Your task to perform on an android device: turn off notifications settings in the gmail app Image 0: 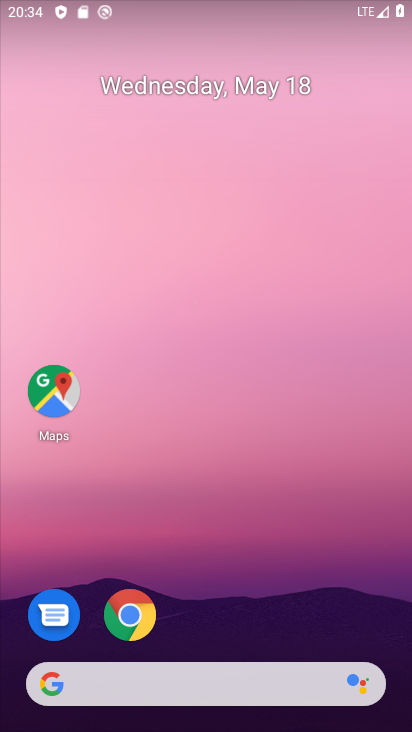
Step 0: drag from (173, 679) to (196, 228)
Your task to perform on an android device: turn off notifications settings in the gmail app Image 1: 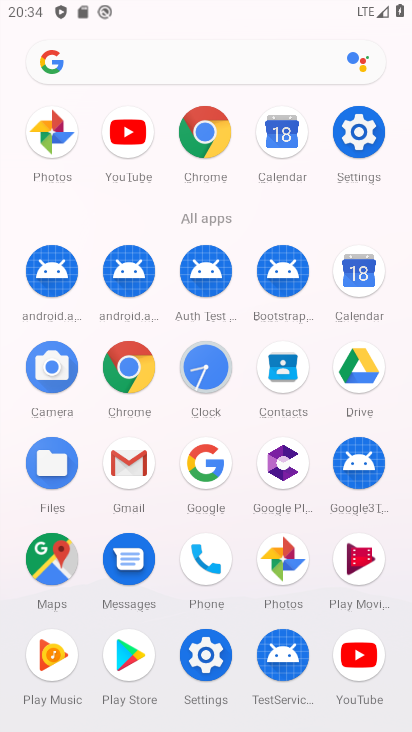
Step 1: click (130, 476)
Your task to perform on an android device: turn off notifications settings in the gmail app Image 2: 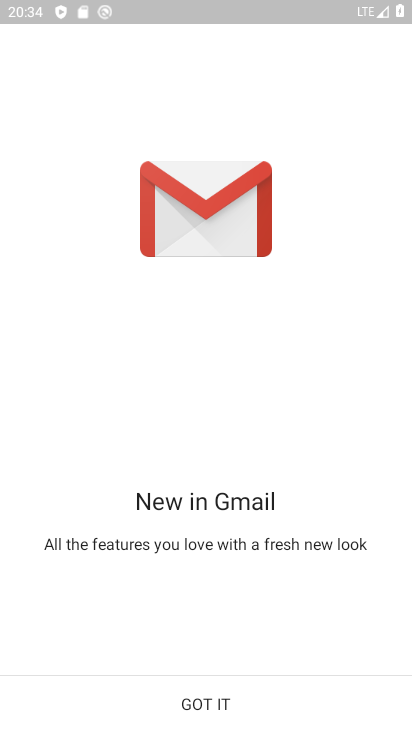
Step 2: click (211, 710)
Your task to perform on an android device: turn off notifications settings in the gmail app Image 3: 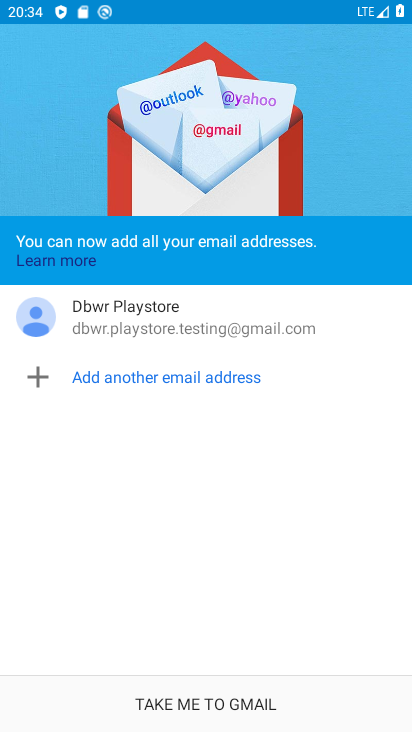
Step 3: click (211, 710)
Your task to perform on an android device: turn off notifications settings in the gmail app Image 4: 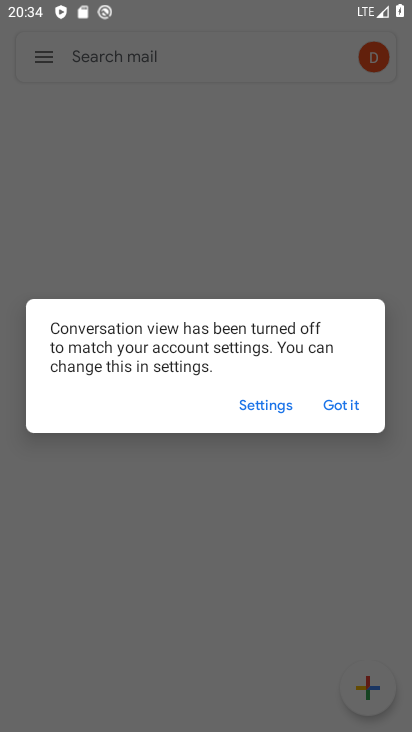
Step 4: click (338, 407)
Your task to perform on an android device: turn off notifications settings in the gmail app Image 5: 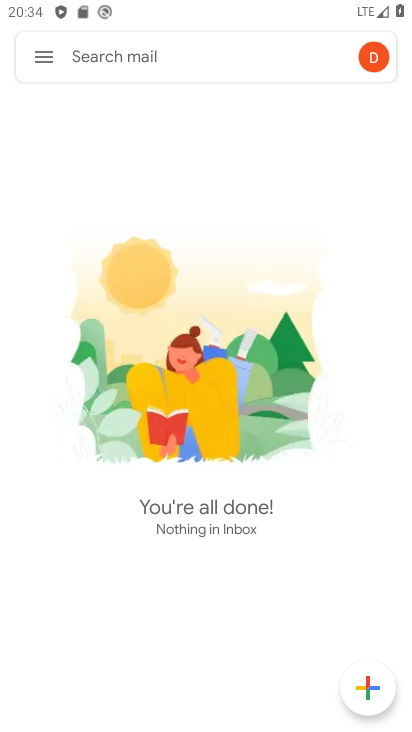
Step 5: click (43, 50)
Your task to perform on an android device: turn off notifications settings in the gmail app Image 6: 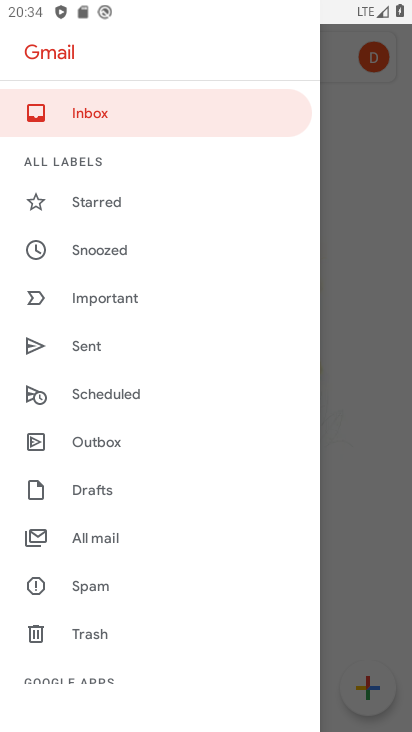
Step 6: drag from (87, 644) to (82, 160)
Your task to perform on an android device: turn off notifications settings in the gmail app Image 7: 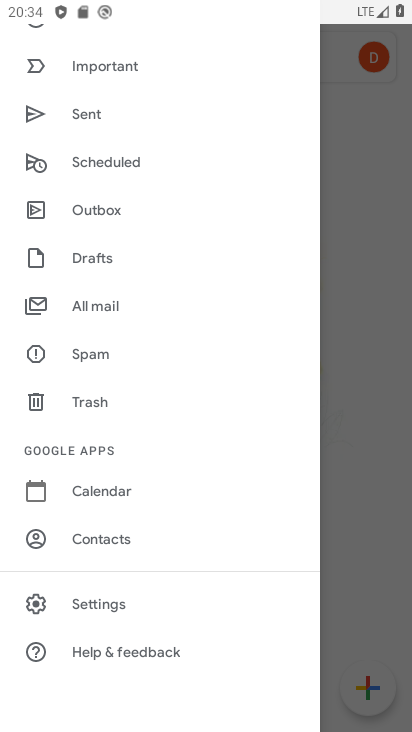
Step 7: click (103, 602)
Your task to perform on an android device: turn off notifications settings in the gmail app Image 8: 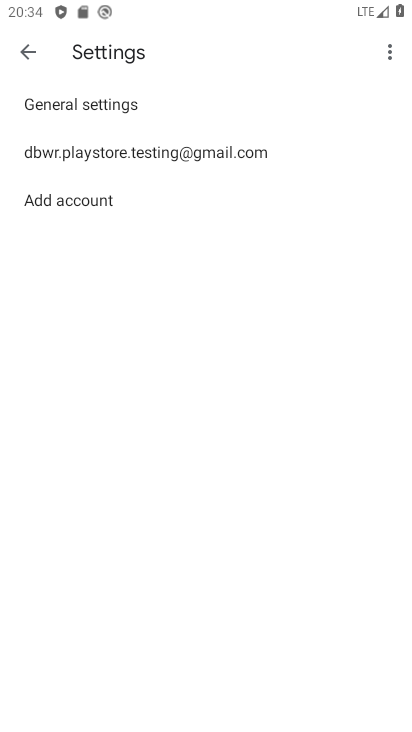
Step 8: click (96, 158)
Your task to perform on an android device: turn off notifications settings in the gmail app Image 9: 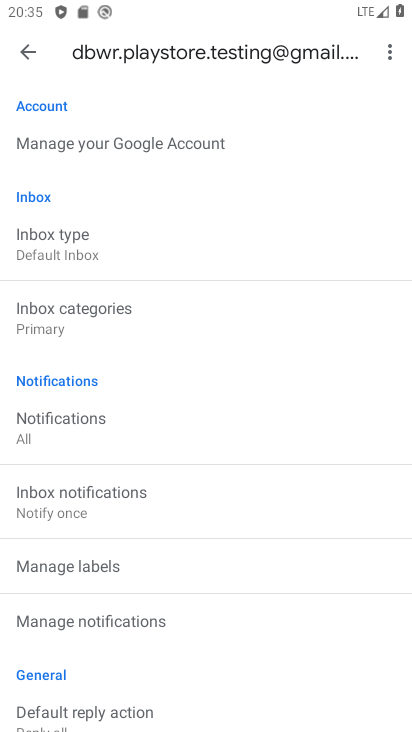
Step 9: click (117, 609)
Your task to perform on an android device: turn off notifications settings in the gmail app Image 10: 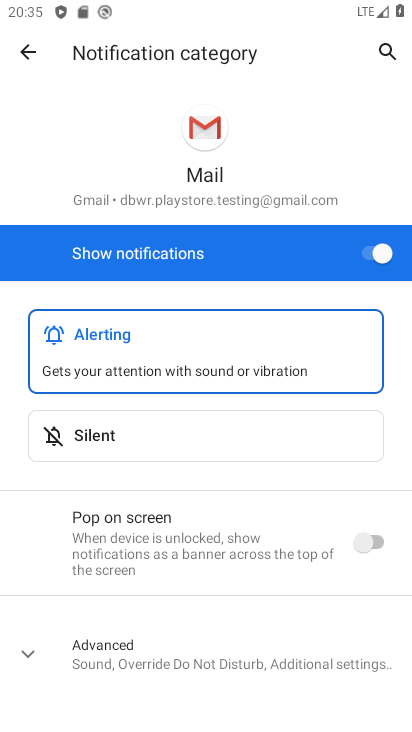
Step 10: click (384, 257)
Your task to perform on an android device: turn off notifications settings in the gmail app Image 11: 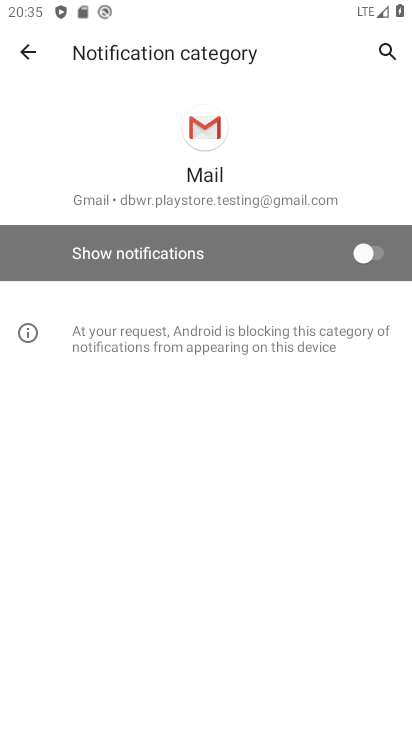
Step 11: task complete